Your task to perform on an android device: open the mobile data screen to see how much data has been used Image 0: 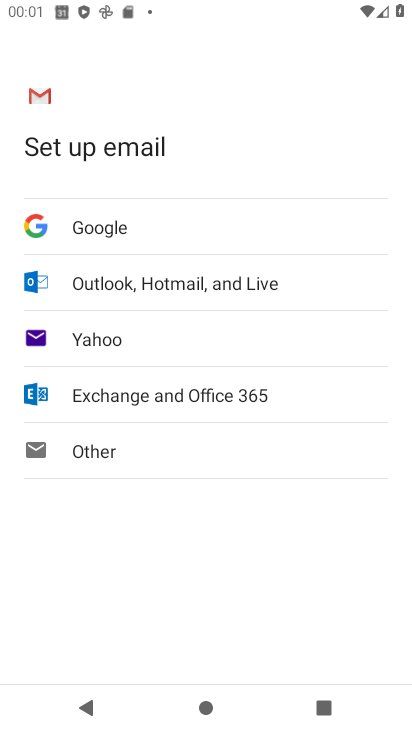
Step 0: press home button
Your task to perform on an android device: open the mobile data screen to see how much data has been used Image 1: 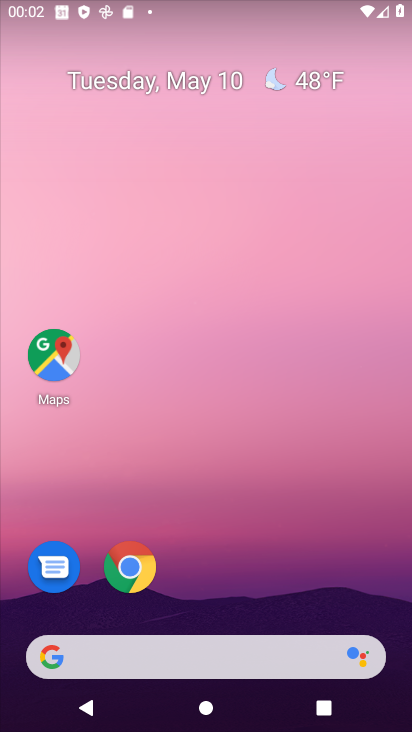
Step 1: drag from (284, 530) to (279, 167)
Your task to perform on an android device: open the mobile data screen to see how much data has been used Image 2: 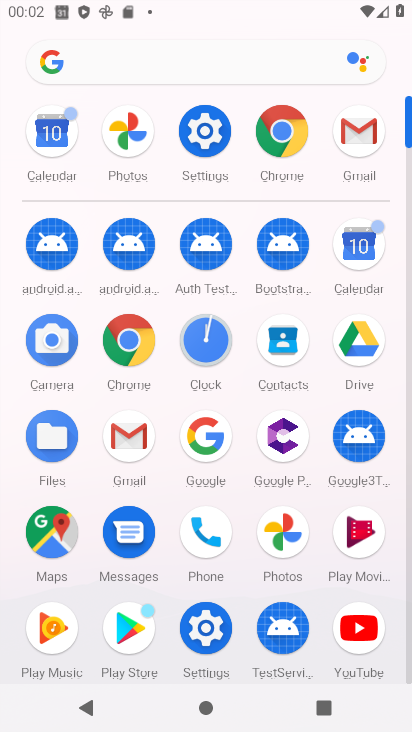
Step 2: click (209, 144)
Your task to perform on an android device: open the mobile data screen to see how much data has been used Image 3: 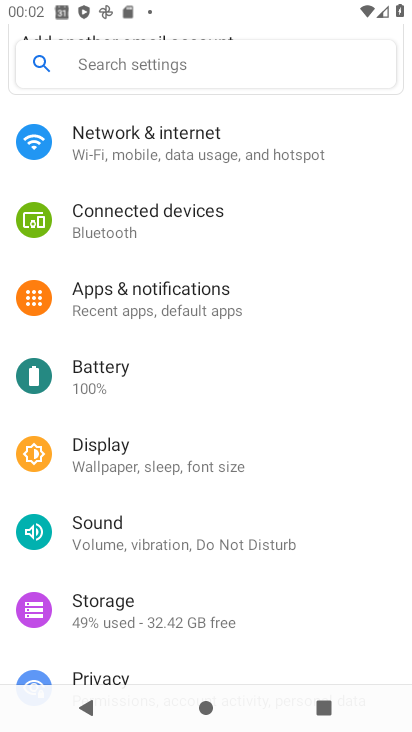
Step 3: click (209, 143)
Your task to perform on an android device: open the mobile data screen to see how much data has been used Image 4: 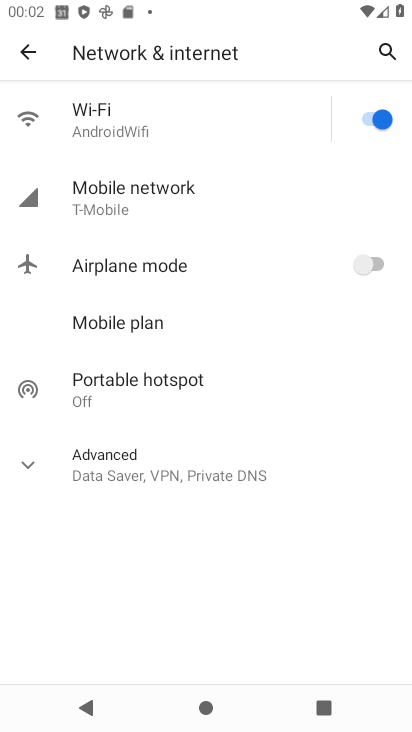
Step 4: click (151, 191)
Your task to perform on an android device: open the mobile data screen to see how much data has been used Image 5: 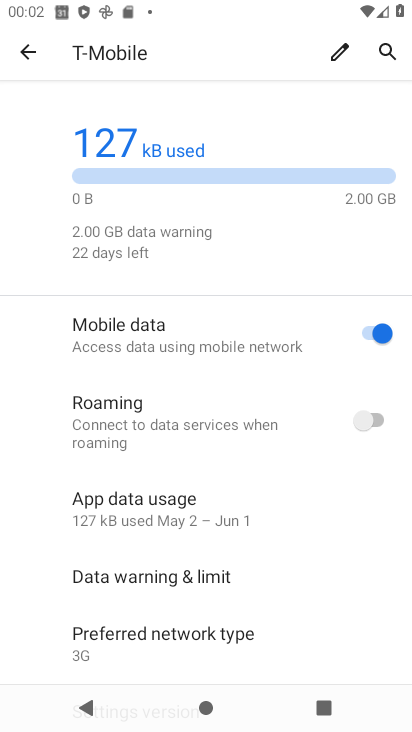
Step 5: task complete